Your task to perform on an android device: turn on bluetooth scan Image 0: 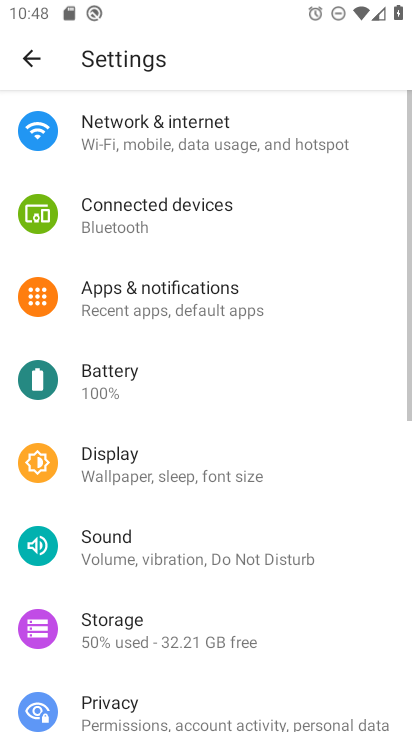
Step 0: press home button
Your task to perform on an android device: turn on bluetooth scan Image 1: 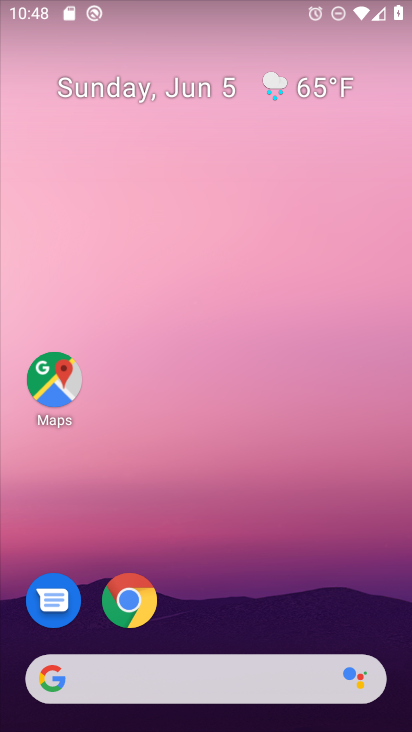
Step 1: drag from (389, 608) to (292, 217)
Your task to perform on an android device: turn on bluetooth scan Image 2: 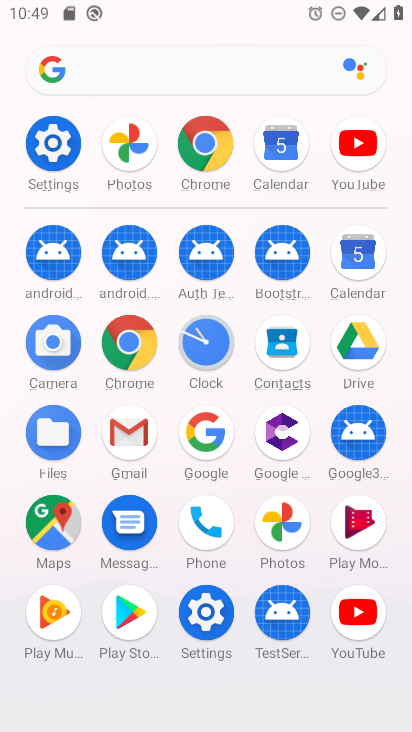
Step 2: click (190, 600)
Your task to perform on an android device: turn on bluetooth scan Image 3: 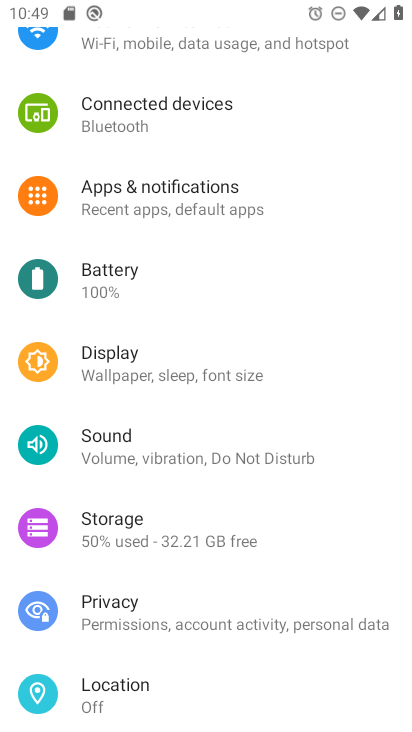
Step 3: click (97, 680)
Your task to perform on an android device: turn on bluetooth scan Image 4: 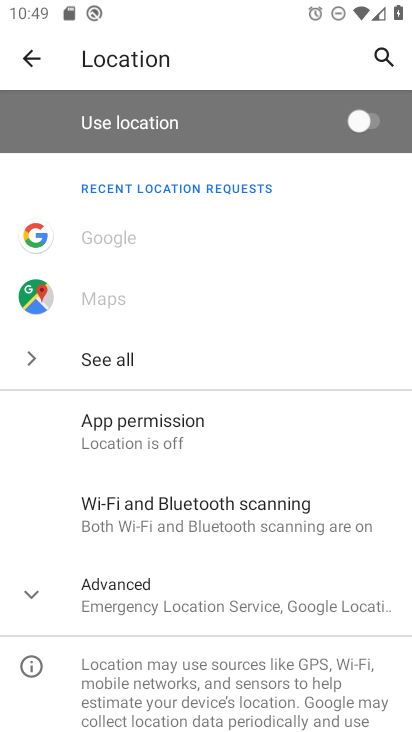
Step 4: click (189, 518)
Your task to perform on an android device: turn on bluetooth scan Image 5: 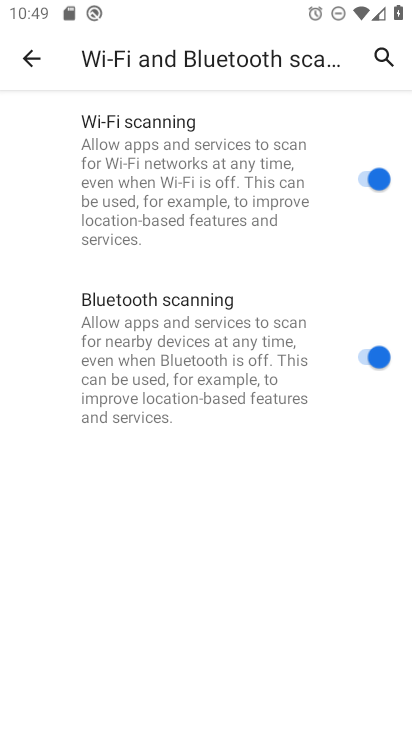
Step 5: task complete